Your task to perform on an android device: toggle sleep mode Image 0: 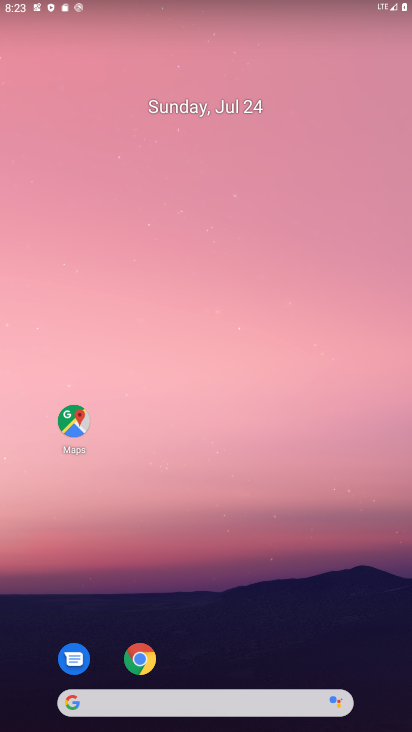
Step 0: drag from (216, 716) to (206, 207)
Your task to perform on an android device: toggle sleep mode Image 1: 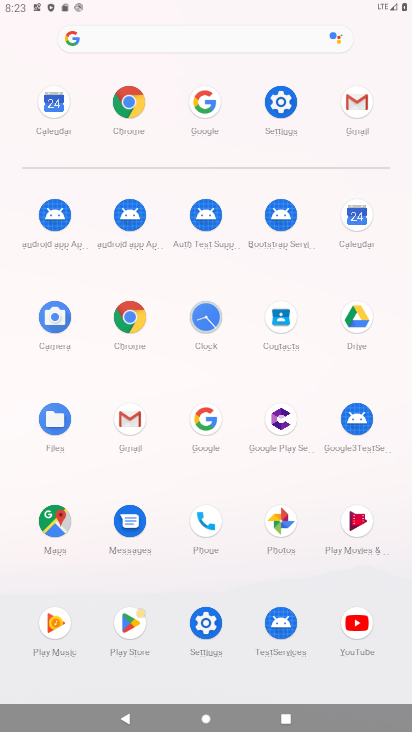
Step 1: click (280, 106)
Your task to perform on an android device: toggle sleep mode Image 2: 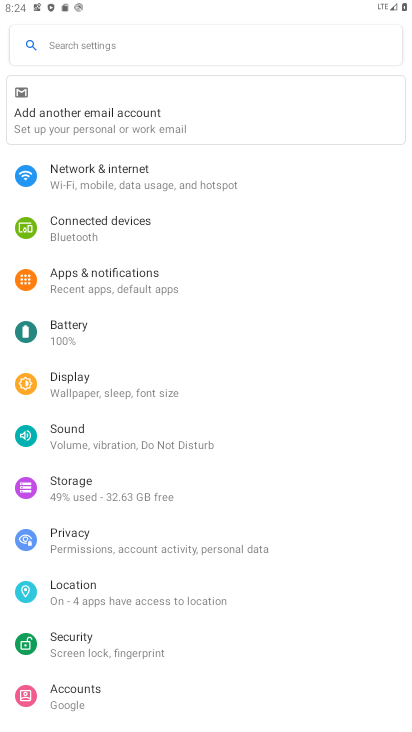
Step 2: click (103, 393)
Your task to perform on an android device: toggle sleep mode Image 3: 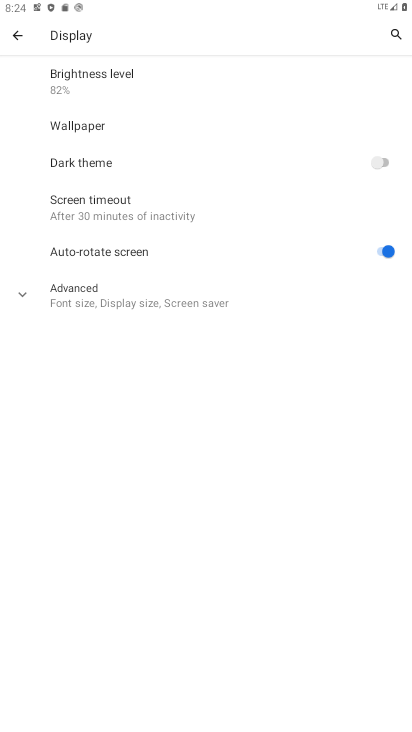
Step 3: task complete